Your task to perform on an android device: manage bookmarks in the chrome app Image 0: 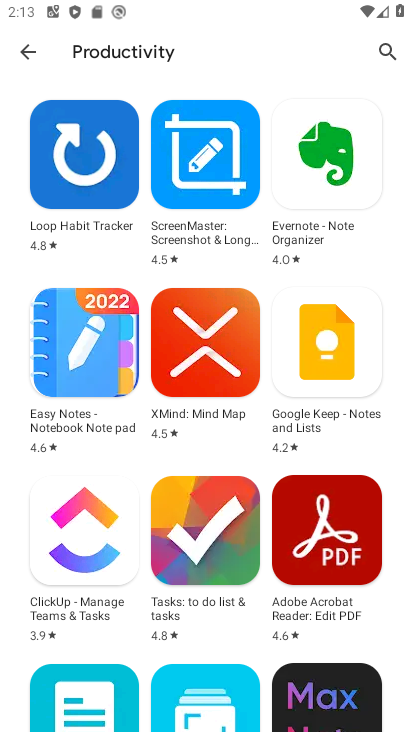
Step 0: press back button
Your task to perform on an android device: manage bookmarks in the chrome app Image 1: 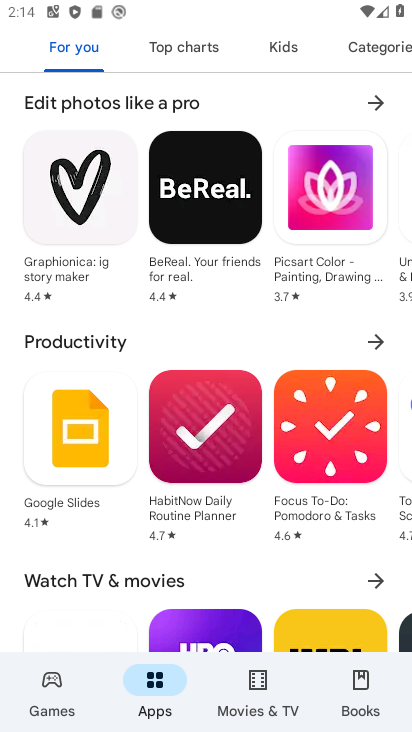
Step 1: press back button
Your task to perform on an android device: manage bookmarks in the chrome app Image 2: 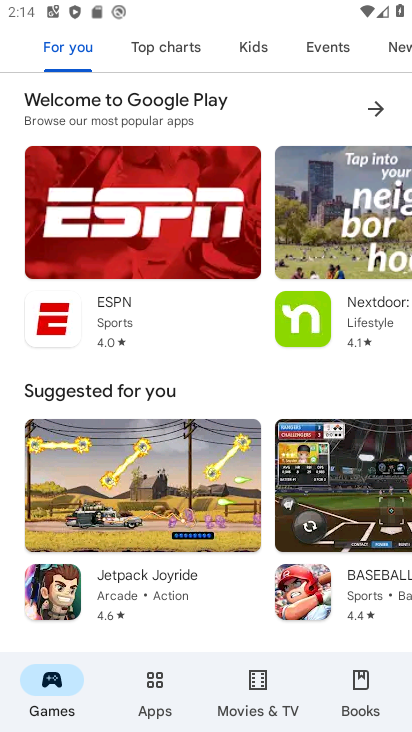
Step 2: press home button
Your task to perform on an android device: manage bookmarks in the chrome app Image 3: 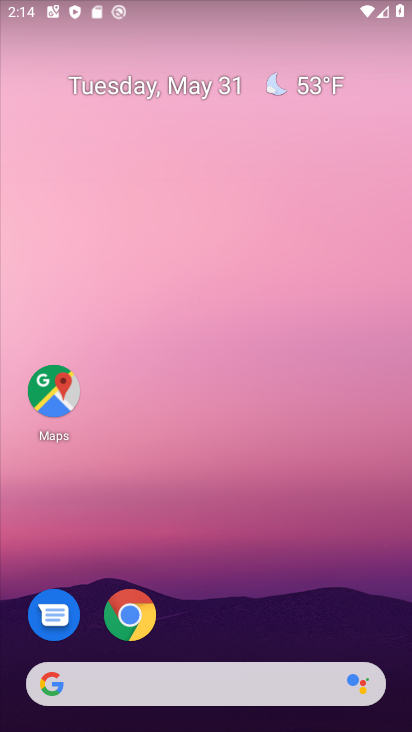
Step 3: click (125, 614)
Your task to perform on an android device: manage bookmarks in the chrome app Image 4: 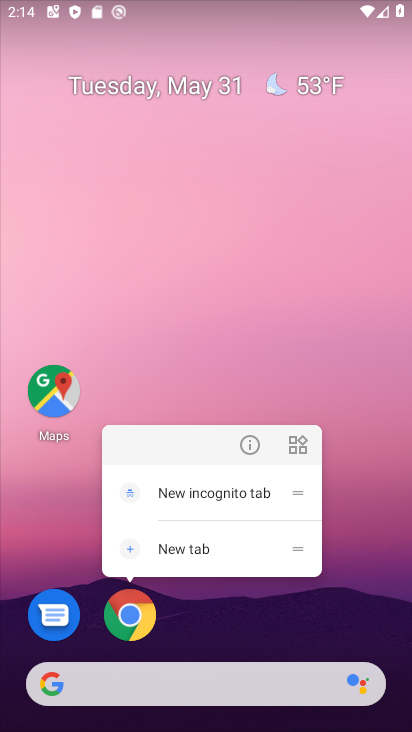
Step 4: click (132, 619)
Your task to perform on an android device: manage bookmarks in the chrome app Image 5: 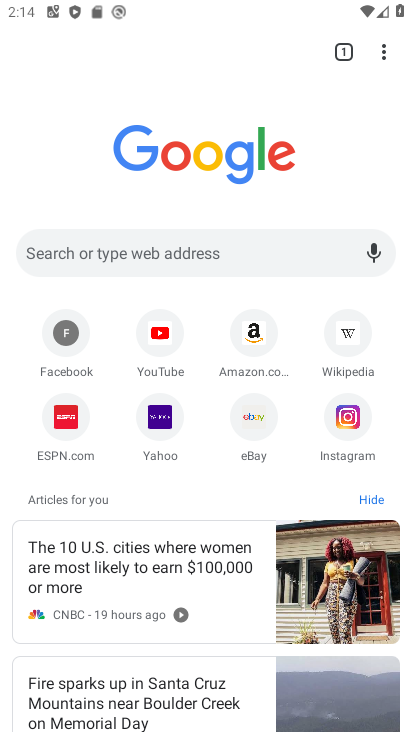
Step 5: task complete